Your task to perform on an android device: Open Reddit.com Image 0: 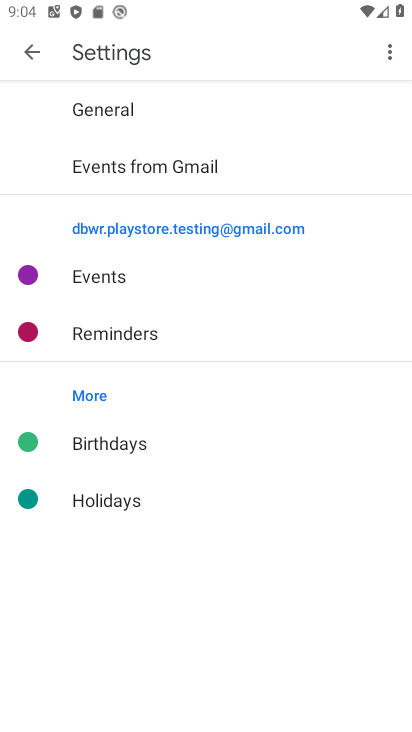
Step 0: press home button
Your task to perform on an android device: Open Reddit.com Image 1: 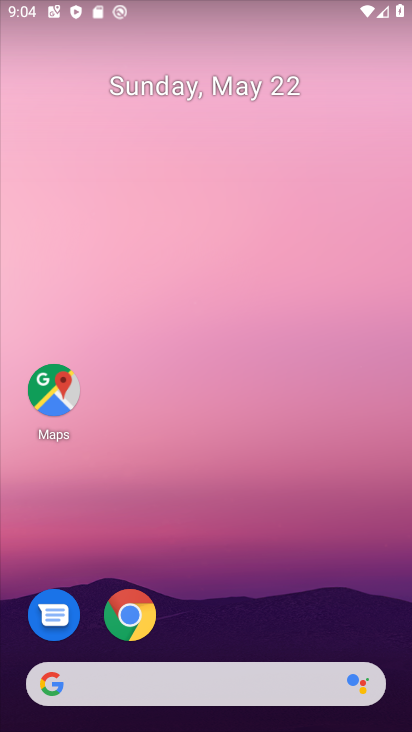
Step 1: click (128, 607)
Your task to perform on an android device: Open Reddit.com Image 2: 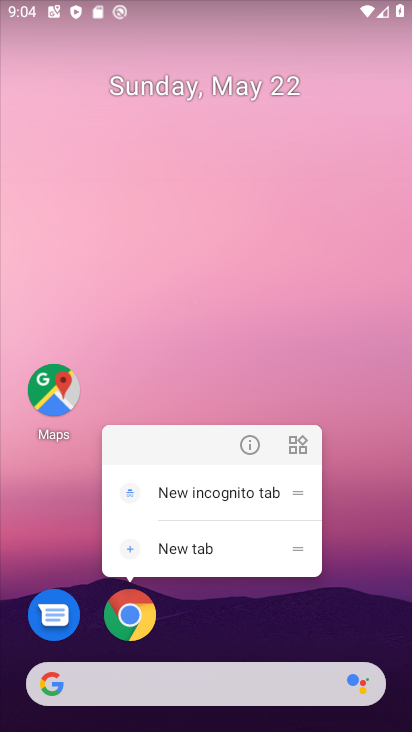
Step 2: click (135, 623)
Your task to perform on an android device: Open Reddit.com Image 3: 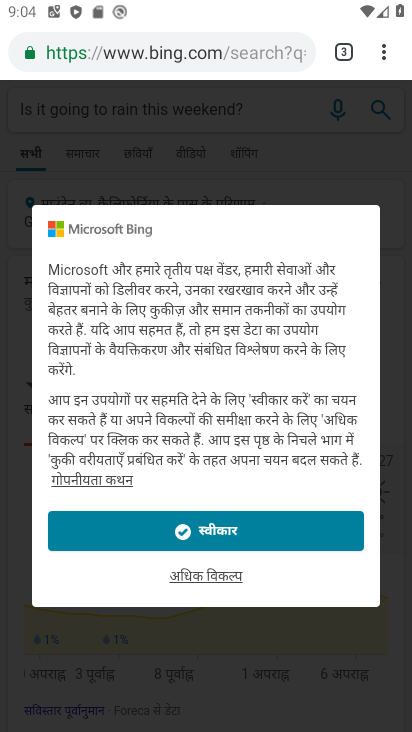
Step 3: click (387, 55)
Your task to perform on an android device: Open Reddit.com Image 4: 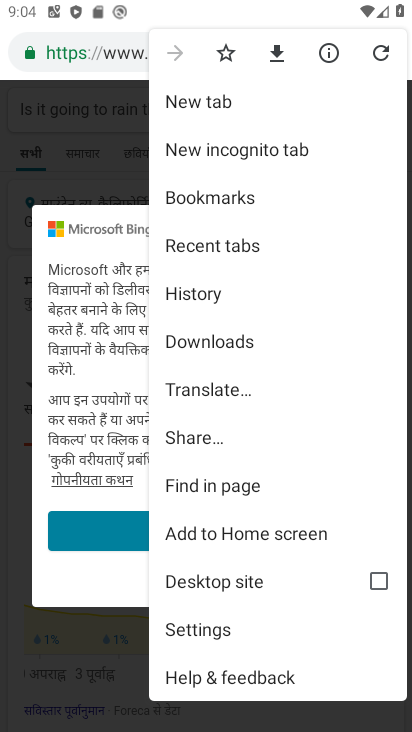
Step 4: click (255, 89)
Your task to perform on an android device: Open Reddit.com Image 5: 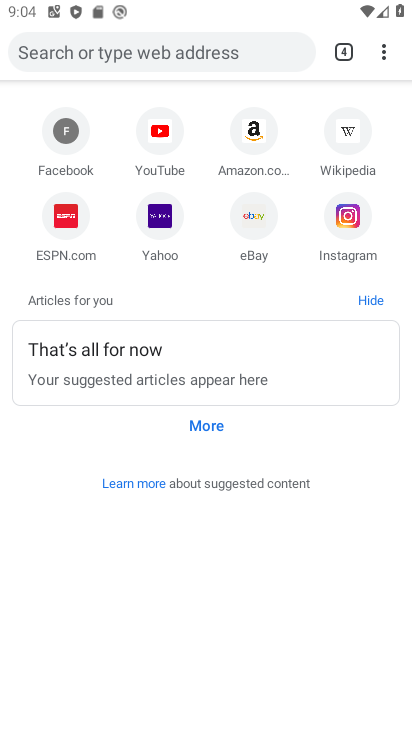
Step 5: click (126, 48)
Your task to perform on an android device: Open Reddit.com Image 6: 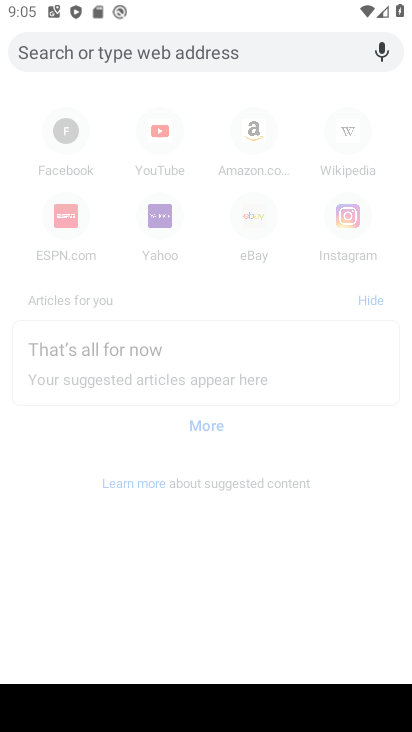
Step 6: type " Reddit.com"
Your task to perform on an android device: Open Reddit.com Image 7: 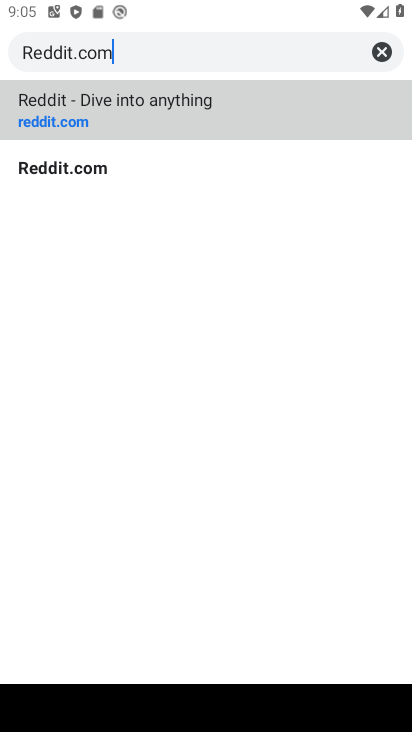
Step 7: click (183, 116)
Your task to perform on an android device: Open Reddit.com Image 8: 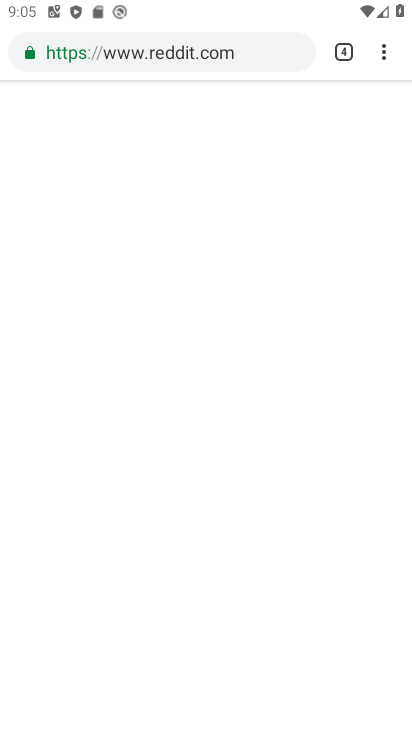
Step 8: task complete